Your task to perform on an android device: change text size in settings app Image 0: 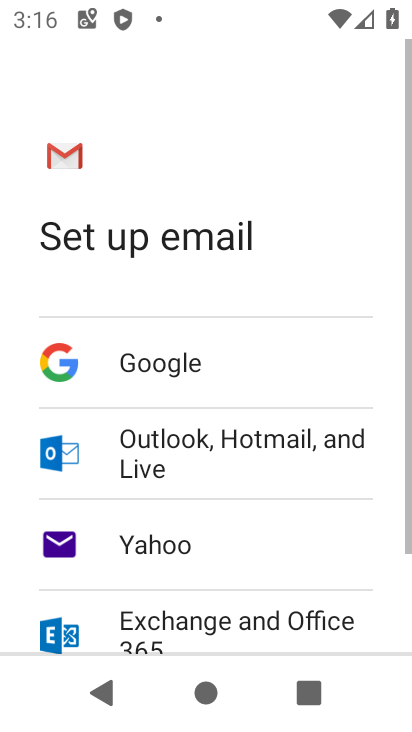
Step 0: press home button
Your task to perform on an android device: change text size in settings app Image 1: 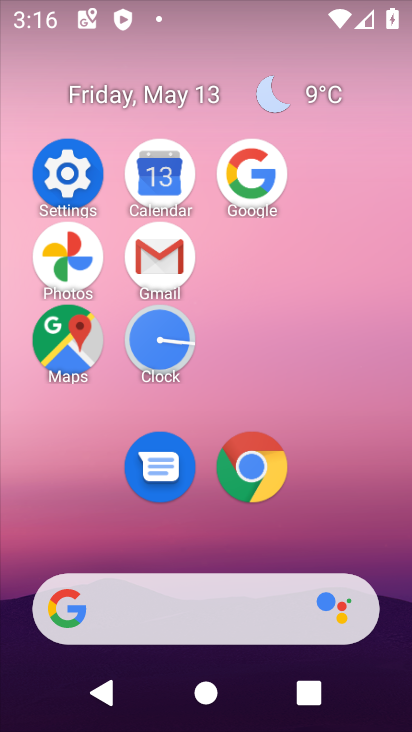
Step 1: click (68, 156)
Your task to perform on an android device: change text size in settings app Image 2: 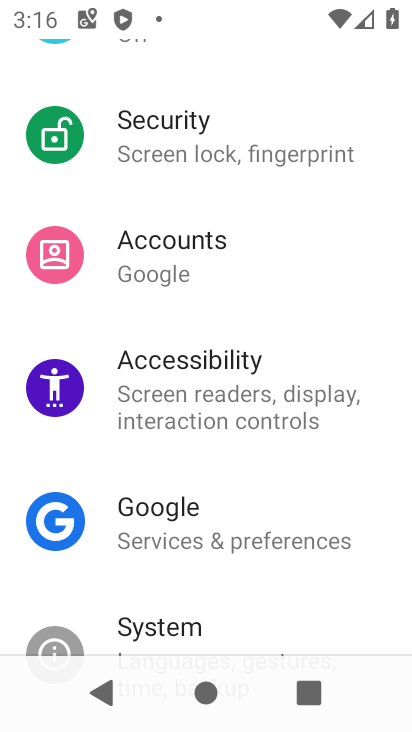
Step 2: drag from (237, 228) to (269, 587)
Your task to perform on an android device: change text size in settings app Image 3: 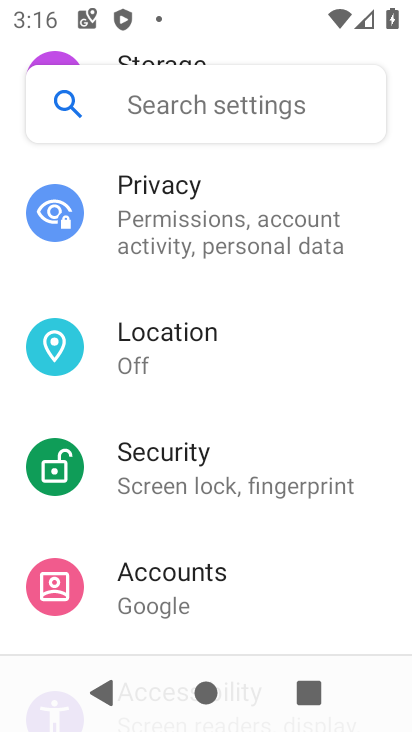
Step 3: drag from (293, 155) to (299, 591)
Your task to perform on an android device: change text size in settings app Image 4: 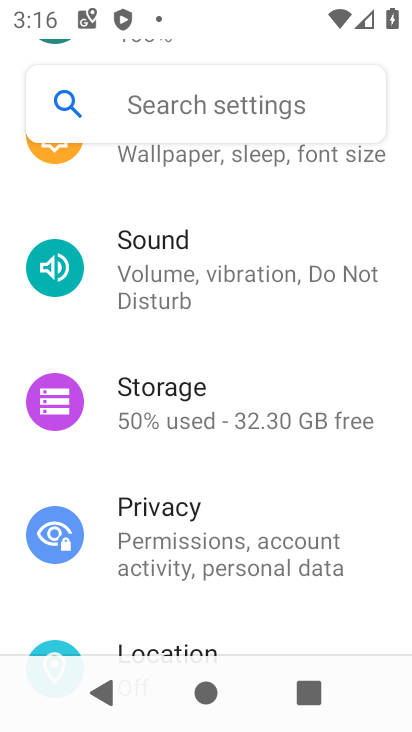
Step 4: click (262, 160)
Your task to perform on an android device: change text size in settings app Image 5: 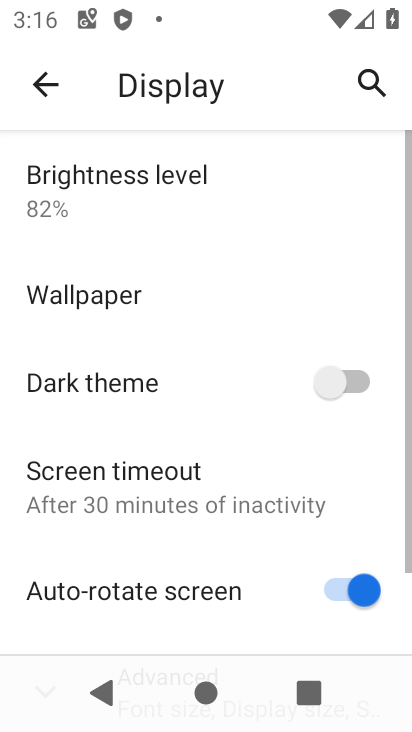
Step 5: drag from (246, 628) to (255, 259)
Your task to perform on an android device: change text size in settings app Image 6: 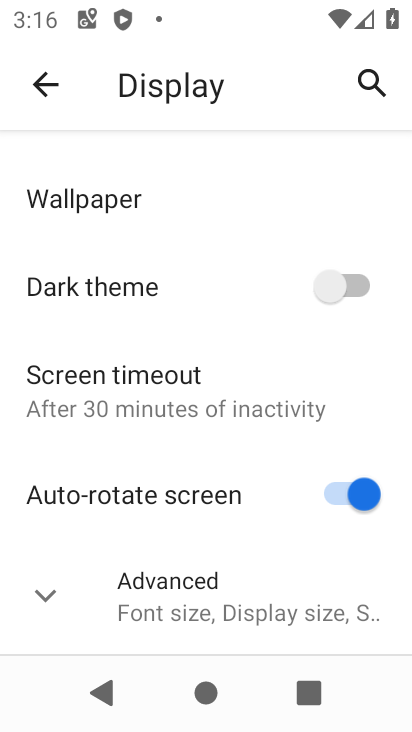
Step 6: click (208, 569)
Your task to perform on an android device: change text size in settings app Image 7: 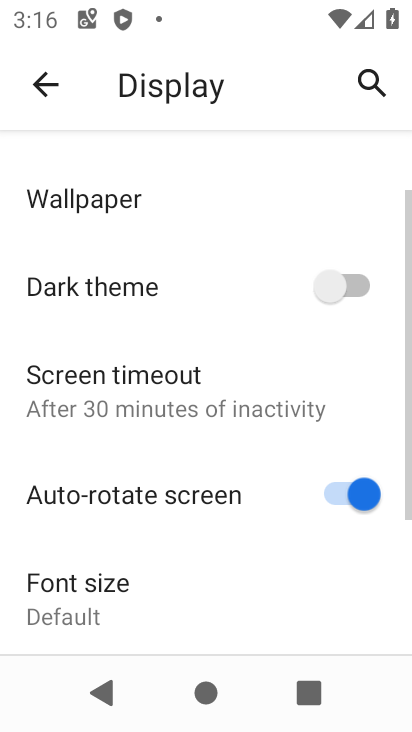
Step 7: click (208, 569)
Your task to perform on an android device: change text size in settings app Image 8: 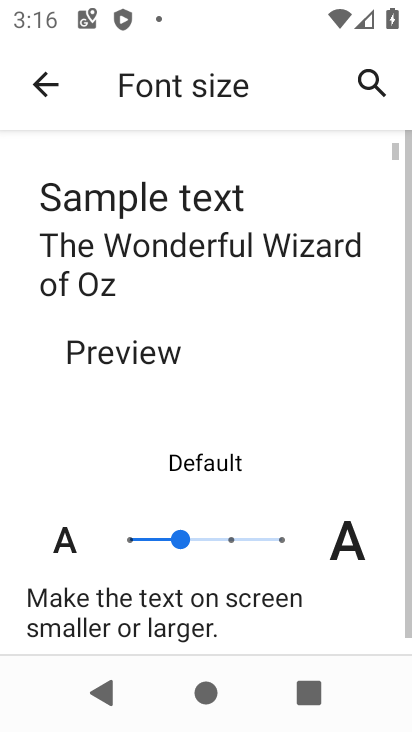
Step 8: click (227, 538)
Your task to perform on an android device: change text size in settings app Image 9: 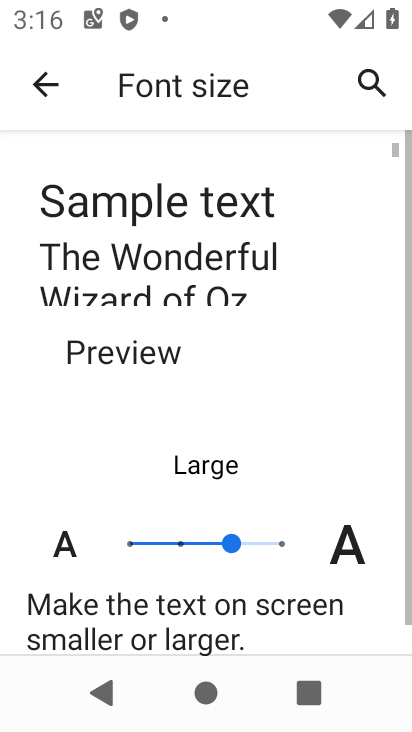
Step 9: task complete